Your task to perform on an android device: Go to display settings Image 0: 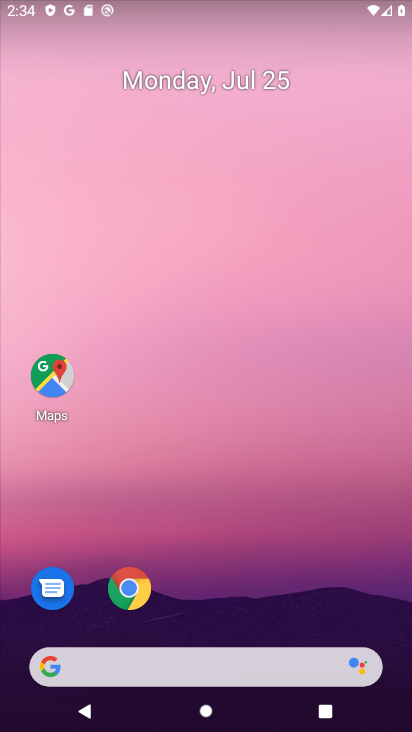
Step 0: press home button
Your task to perform on an android device: Go to display settings Image 1: 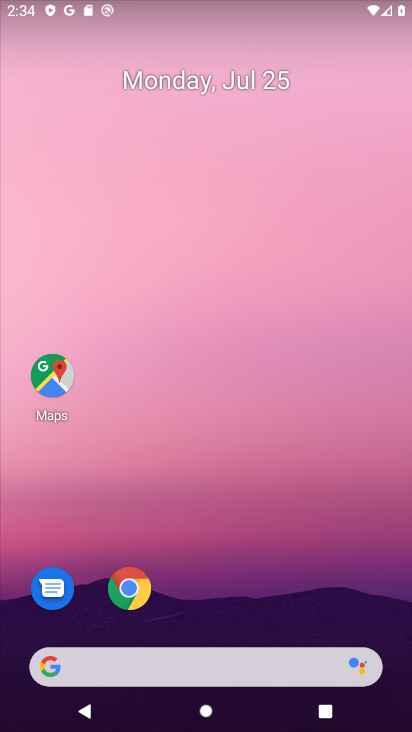
Step 1: drag from (222, 621) to (251, 32)
Your task to perform on an android device: Go to display settings Image 2: 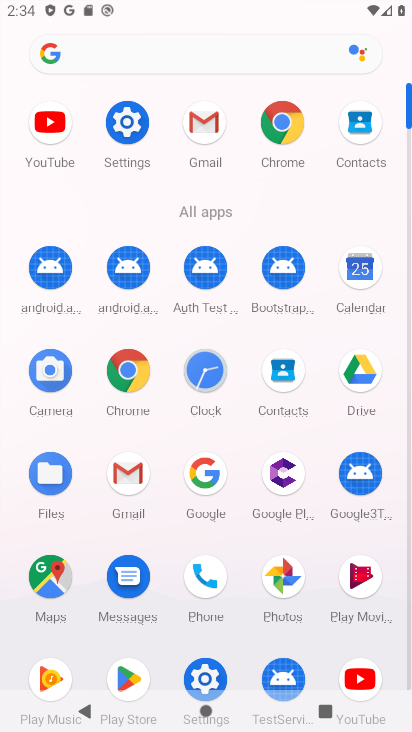
Step 2: click (122, 119)
Your task to perform on an android device: Go to display settings Image 3: 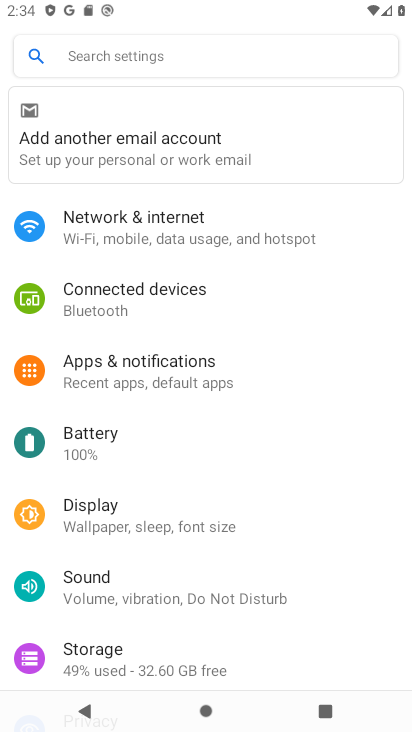
Step 3: click (129, 500)
Your task to perform on an android device: Go to display settings Image 4: 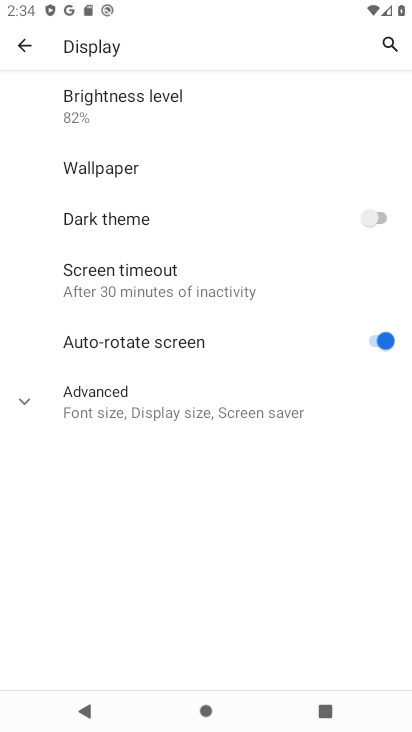
Step 4: click (21, 394)
Your task to perform on an android device: Go to display settings Image 5: 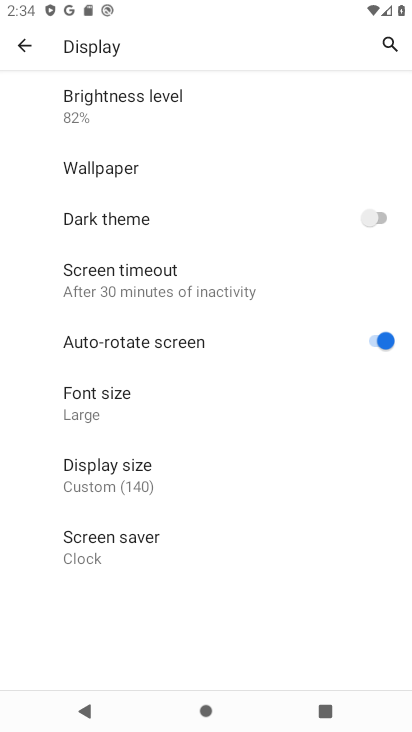
Step 5: task complete